Your task to perform on an android device: open app "Roku - Official Remote Control" (install if not already installed) Image 0: 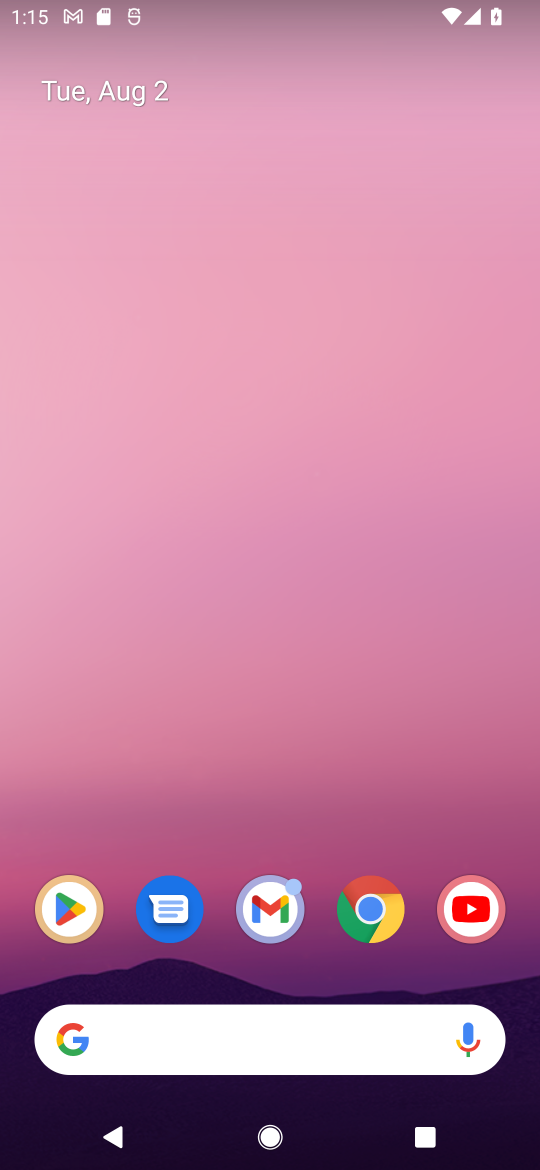
Step 0: press home button
Your task to perform on an android device: open app "Roku - Official Remote Control" (install if not already installed) Image 1: 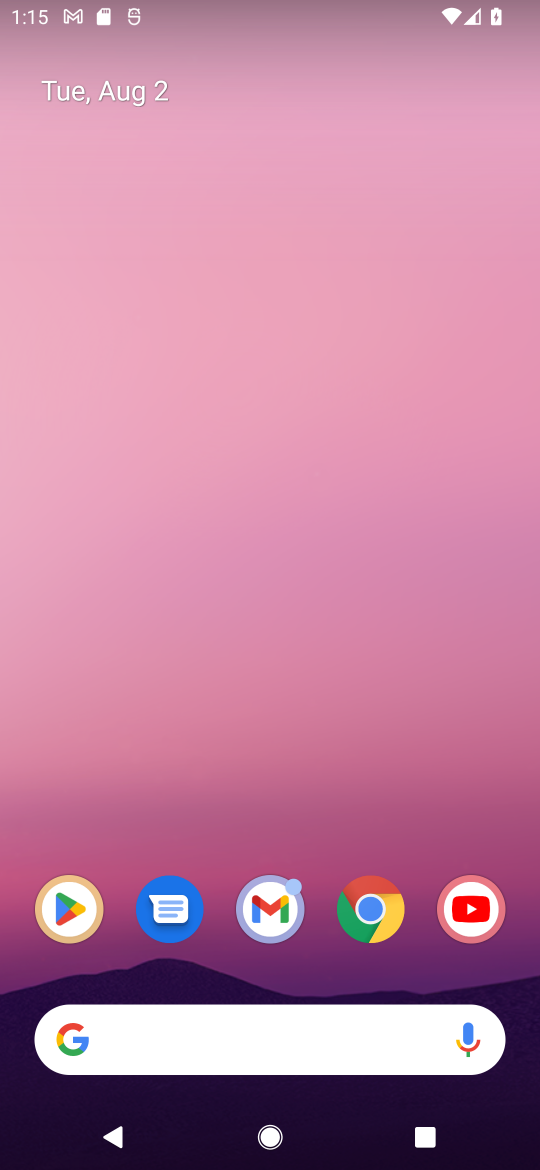
Step 1: click (70, 903)
Your task to perform on an android device: open app "Roku - Official Remote Control" (install if not already installed) Image 2: 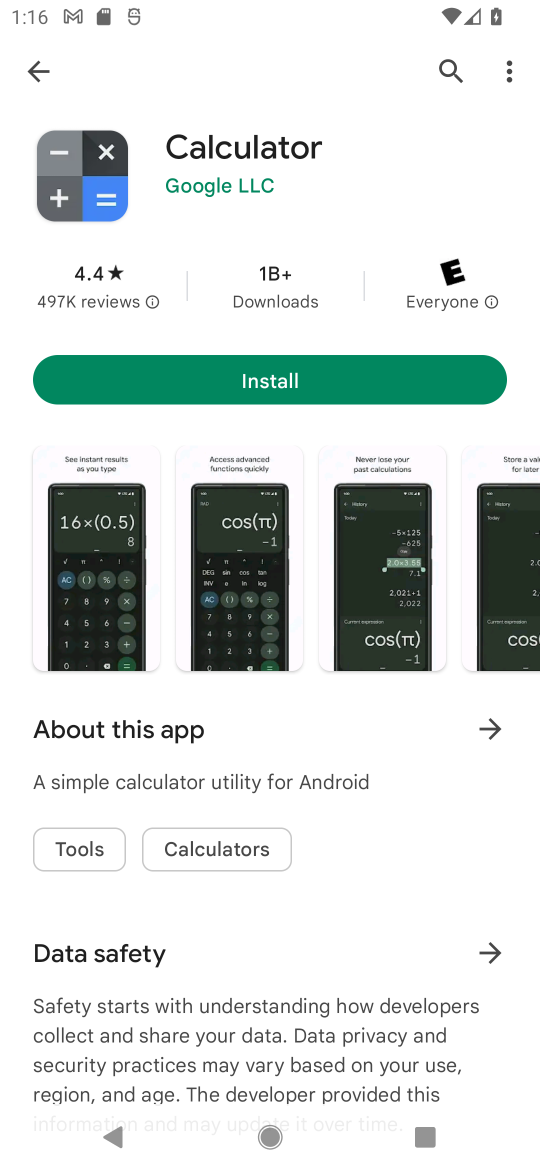
Step 2: click (447, 52)
Your task to perform on an android device: open app "Roku - Official Remote Control" (install if not already installed) Image 3: 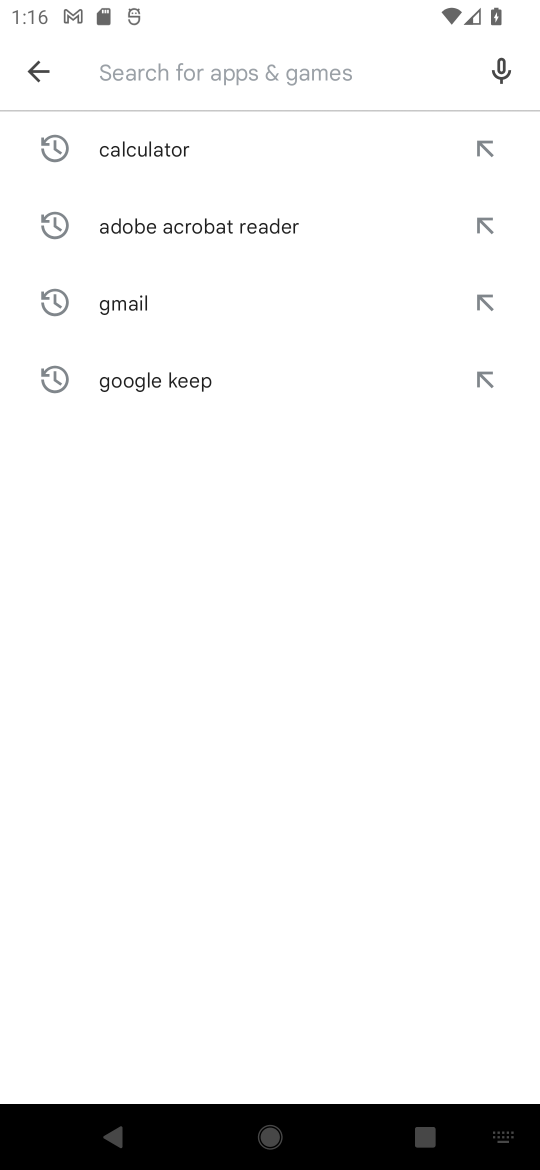
Step 3: type "Roku - Official Remote Control"
Your task to perform on an android device: open app "Roku - Official Remote Control" (install if not already installed) Image 4: 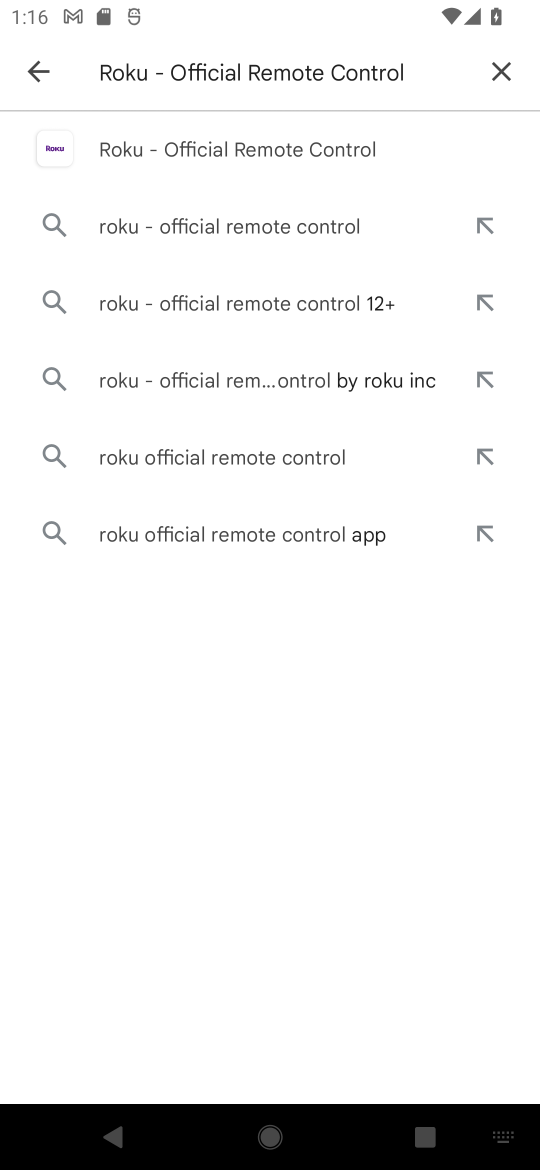
Step 4: click (120, 147)
Your task to perform on an android device: open app "Roku - Official Remote Control" (install if not already installed) Image 5: 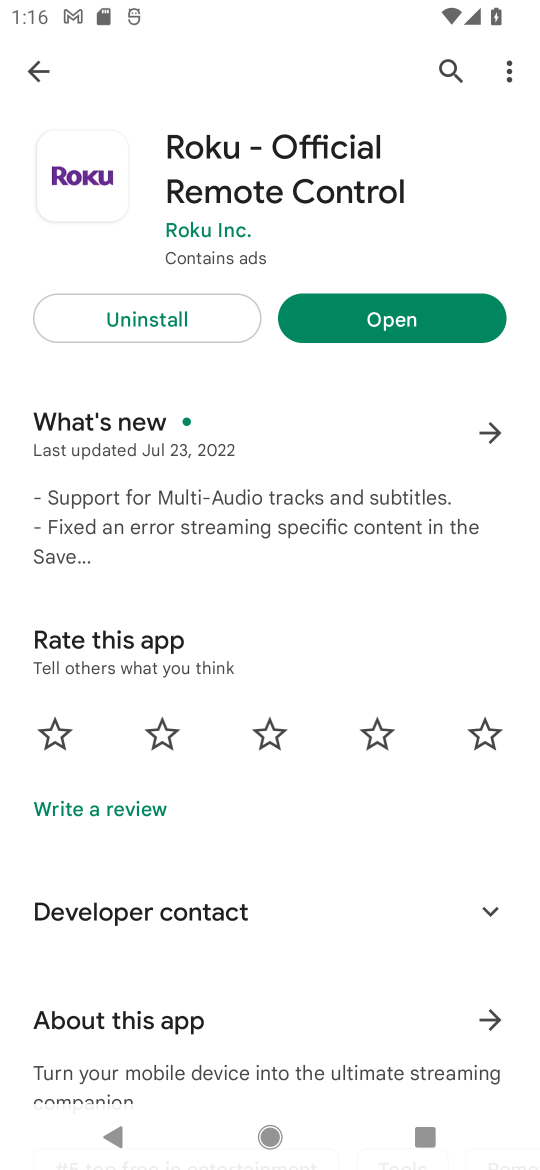
Step 5: click (376, 322)
Your task to perform on an android device: open app "Roku - Official Remote Control" (install if not already installed) Image 6: 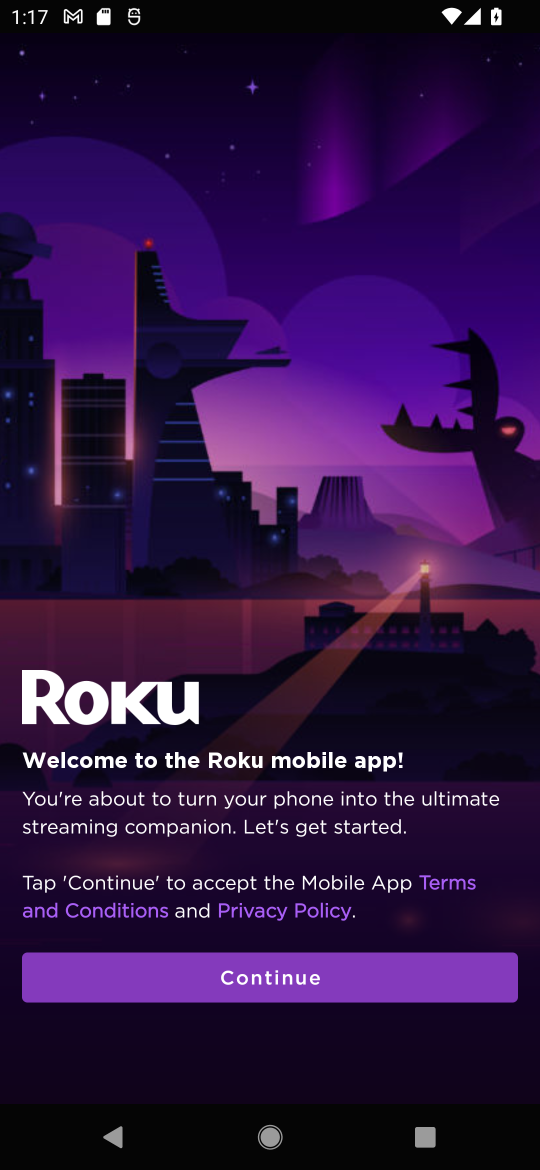
Step 6: click (283, 982)
Your task to perform on an android device: open app "Roku - Official Remote Control" (install if not already installed) Image 7: 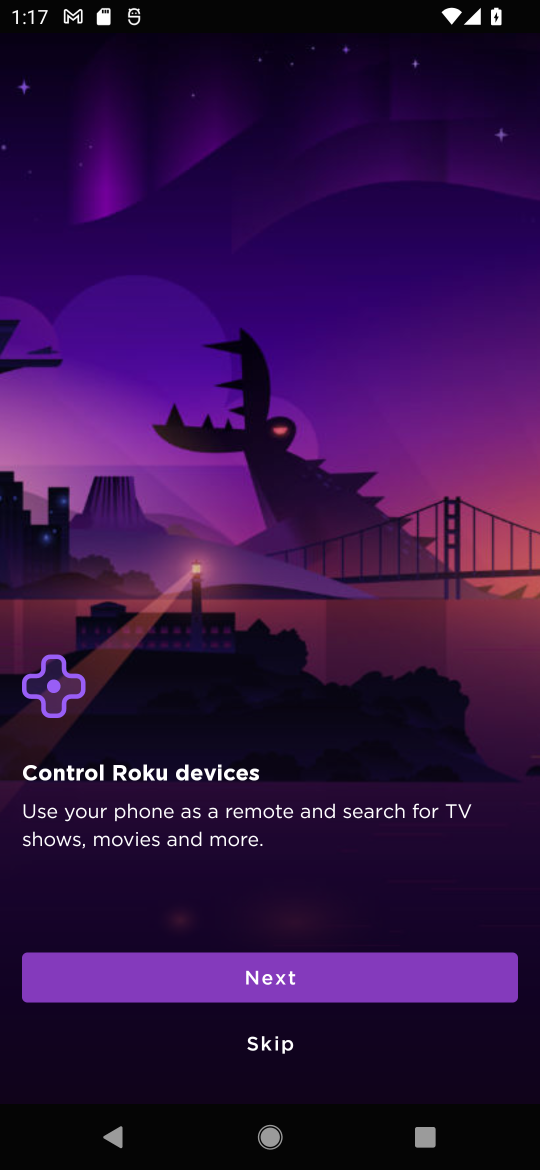
Step 7: click (277, 994)
Your task to perform on an android device: open app "Roku - Official Remote Control" (install if not already installed) Image 8: 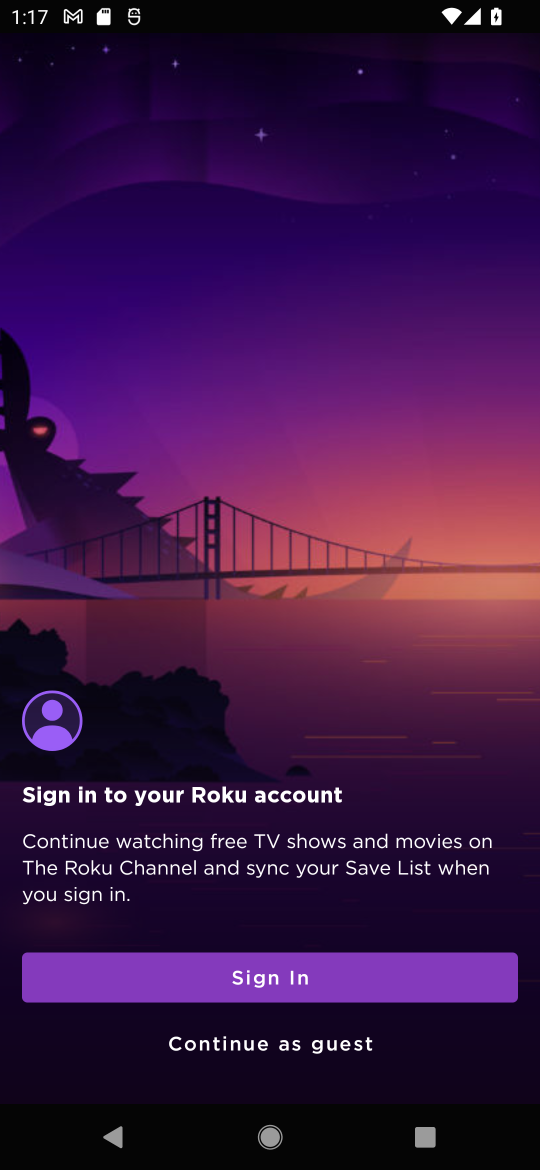
Step 8: task complete